Your task to perform on an android device: turn on javascript in the chrome app Image 0: 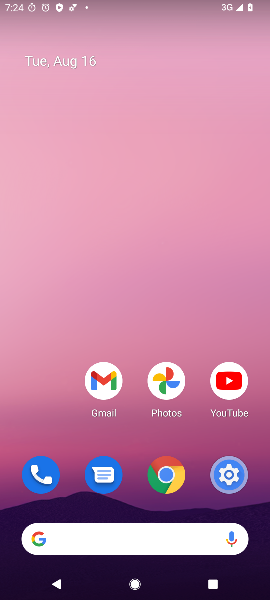
Step 0: drag from (182, 489) to (112, 0)
Your task to perform on an android device: turn on javascript in the chrome app Image 1: 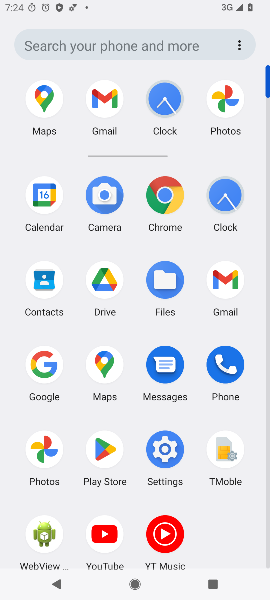
Step 1: click (148, 192)
Your task to perform on an android device: turn on javascript in the chrome app Image 2: 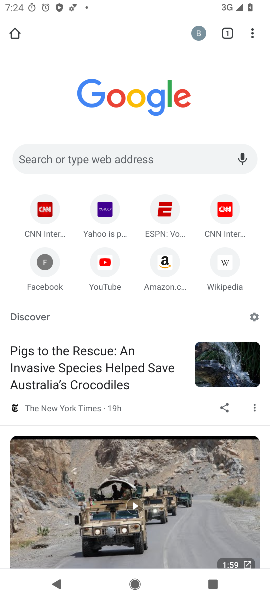
Step 2: click (252, 38)
Your task to perform on an android device: turn on javascript in the chrome app Image 3: 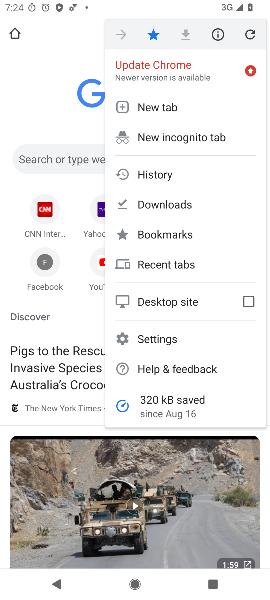
Step 3: click (140, 334)
Your task to perform on an android device: turn on javascript in the chrome app Image 4: 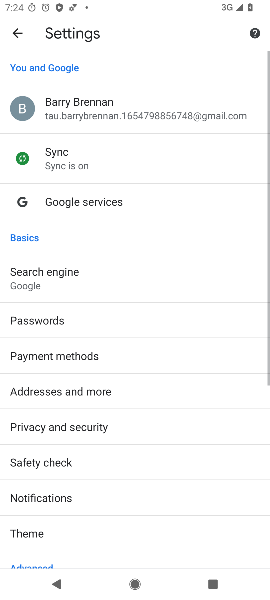
Step 4: drag from (67, 541) to (87, 99)
Your task to perform on an android device: turn on javascript in the chrome app Image 5: 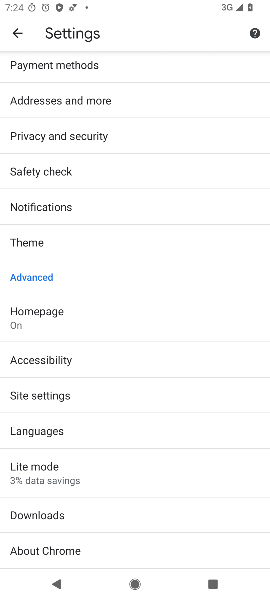
Step 5: click (61, 400)
Your task to perform on an android device: turn on javascript in the chrome app Image 6: 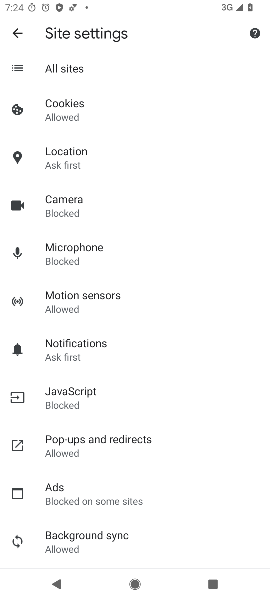
Step 6: click (91, 400)
Your task to perform on an android device: turn on javascript in the chrome app Image 7: 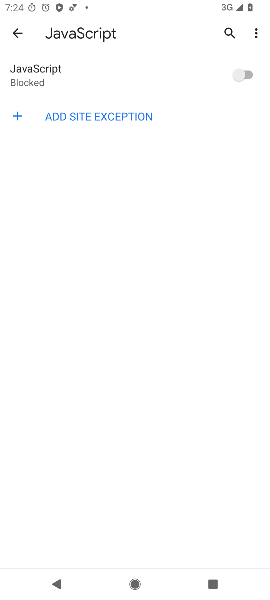
Step 7: click (243, 74)
Your task to perform on an android device: turn on javascript in the chrome app Image 8: 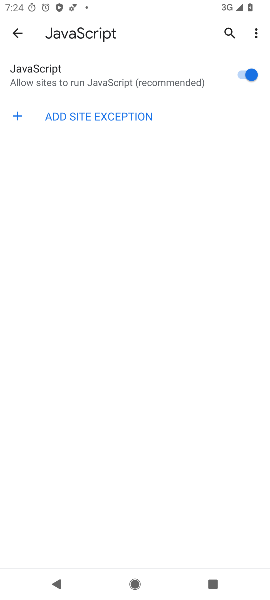
Step 8: task complete